Your task to perform on an android device: Open the calendar app, open the side menu, and click the "Day" option Image 0: 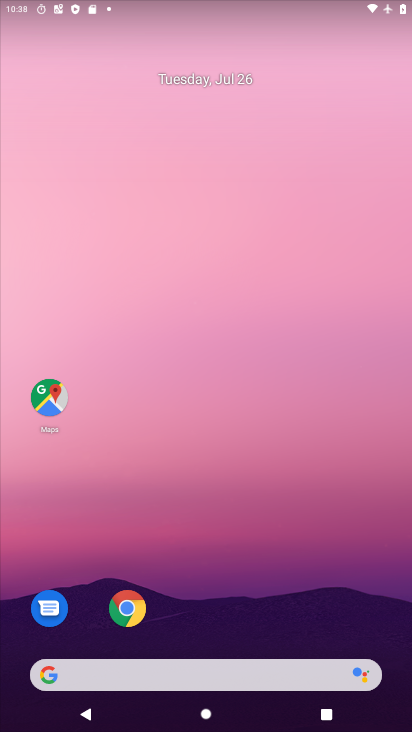
Step 0: drag from (191, 605) to (202, 199)
Your task to perform on an android device: Open the calendar app, open the side menu, and click the "Day" option Image 1: 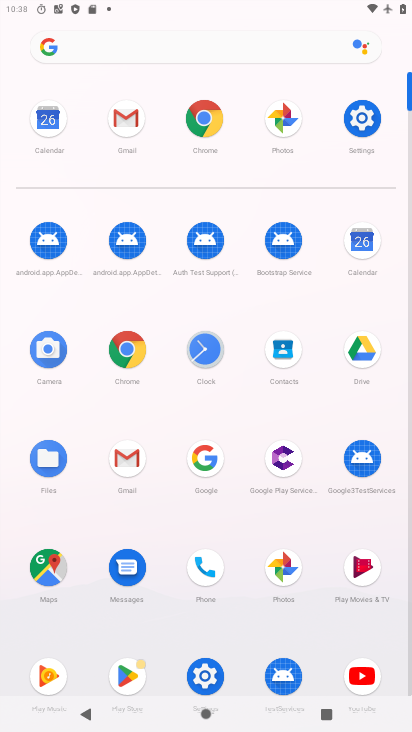
Step 1: click (371, 246)
Your task to perform on an android device: Open the calendar app, open the side menu, and click the "Day" option Image 2: 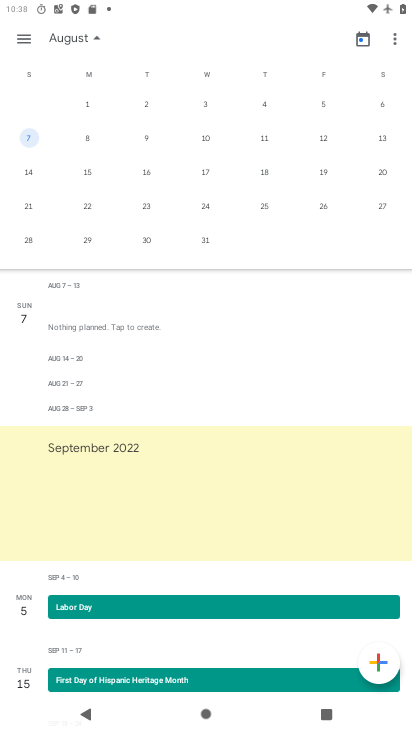
Step 2: click (23, 40)
Your task to perform on an android device: Open the calendar app, open the side menu, and click the "Day" option Image 3: 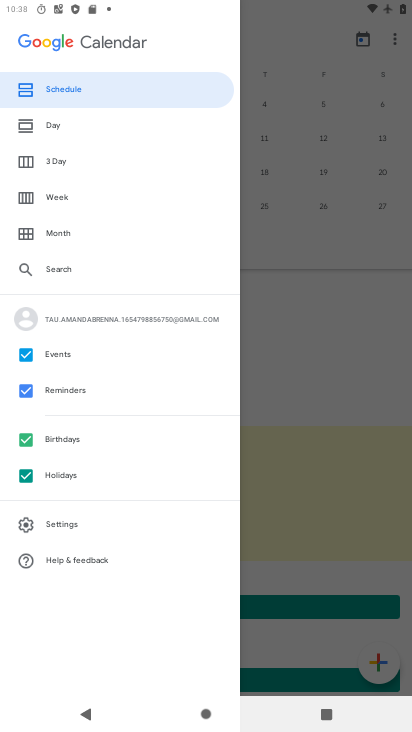
Step 3: click (46, 125)
Your task to perform on an android device: Open the calendar app, open the side menu, and click the "Day" option Image 4: 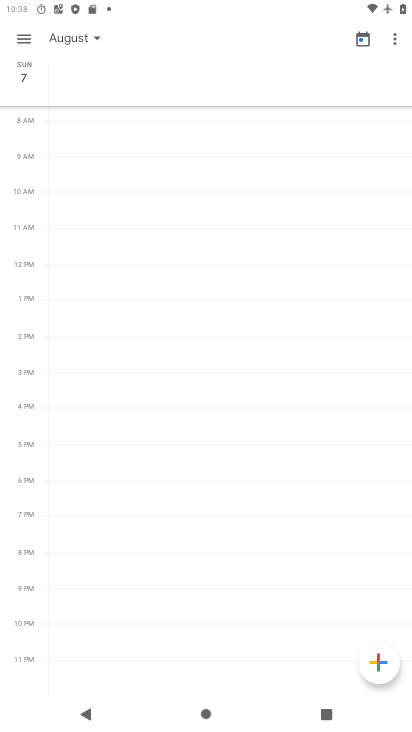
Step 4: click (19, 47)
Your task to perform on an android device: Open the calendar app, open the side menu, and click the "Day" option Image 5: 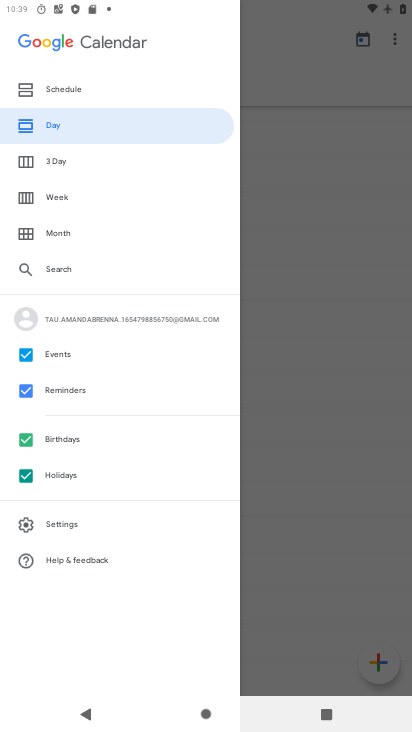
Step 5: task complete